Your task to perform on an android device: choose inbox layout in the gmail app Image 0: 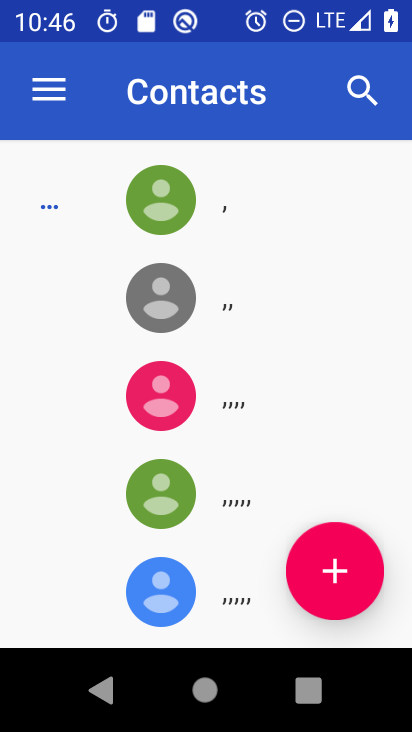
Step 0: drag from (206, 394) to (273, 98)
Your task to perform on an android device: choose inbox layout in the gmail app Image 1: 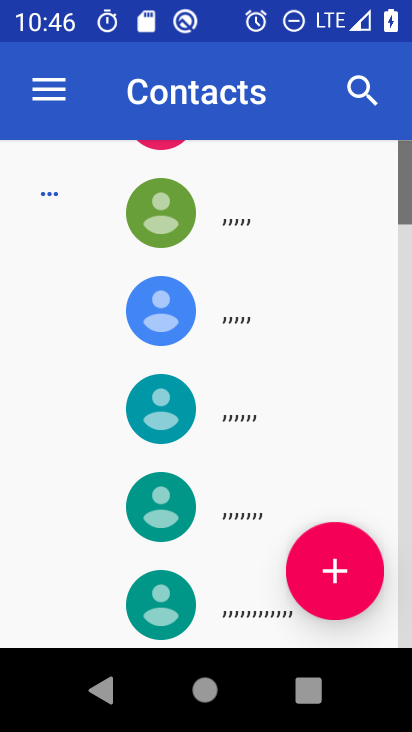
Step 1: press home button
Your task to perform on an android device: choose inbox layout in the gmail app Image 2: 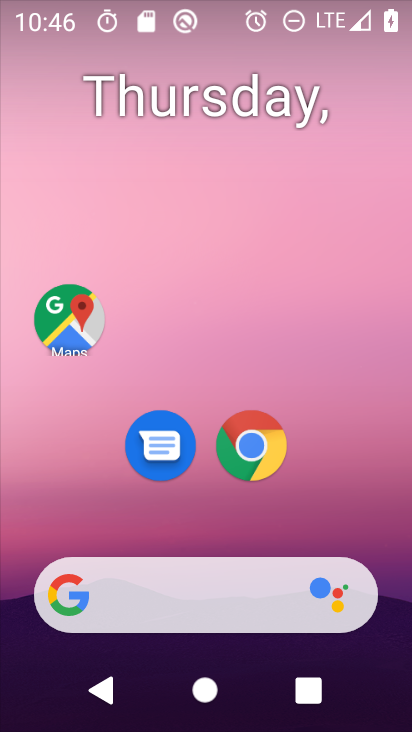
Step 2: drag from (174, 537) to (219, 231)
Your task to perform on an android device: choose inbox layout in the gmail app Image 3: 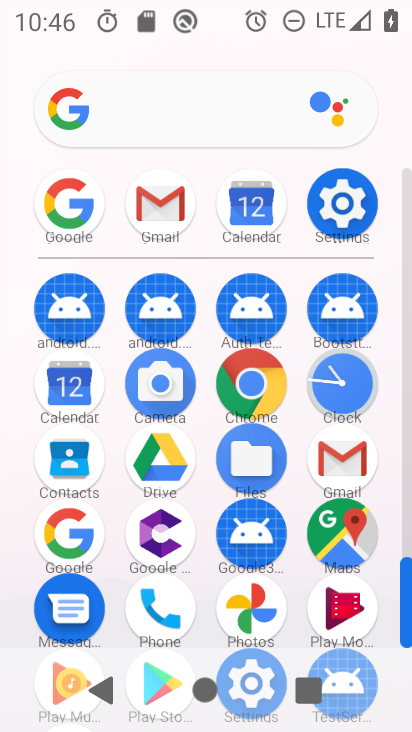
Step 3: click (154, 215)
Your task to perform on an android device: choose inbox layout in the gmail app Image 4: 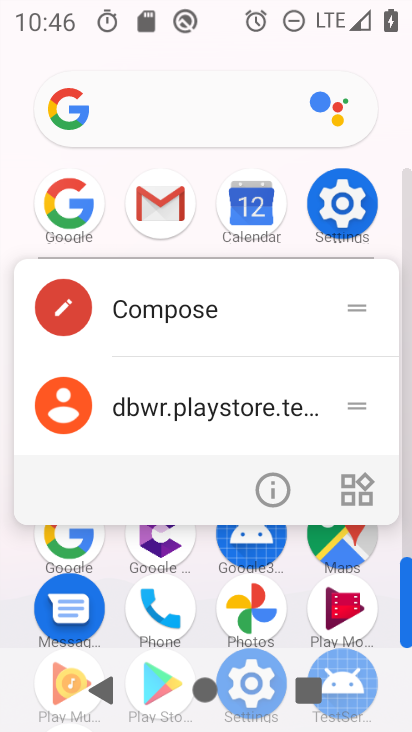
Step 4: click (276, 478)
Your task to perform on an android device: choose inbox layout in the gmail app Image 5: 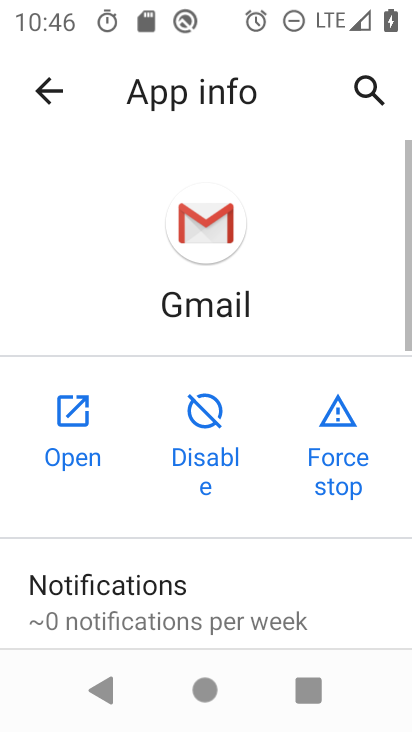
Step 5: click (78, 422)
Your task to perform on an android device: choose inbox layout in the gmail app Image 6: 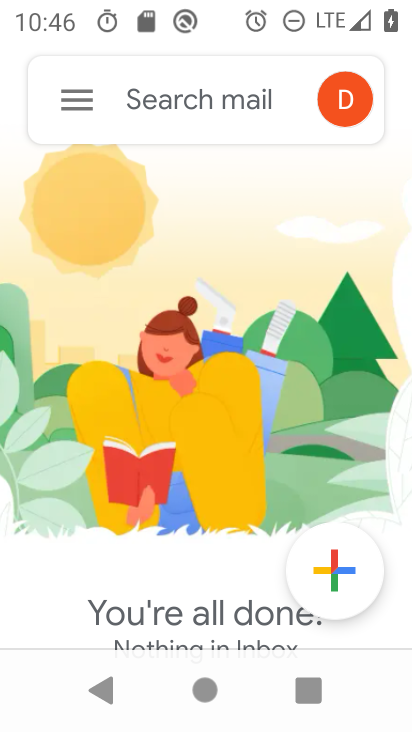
Step 6: click (90, 111)
Your task to perform on an android device: choose inbox layout in the gmail app Image 7: 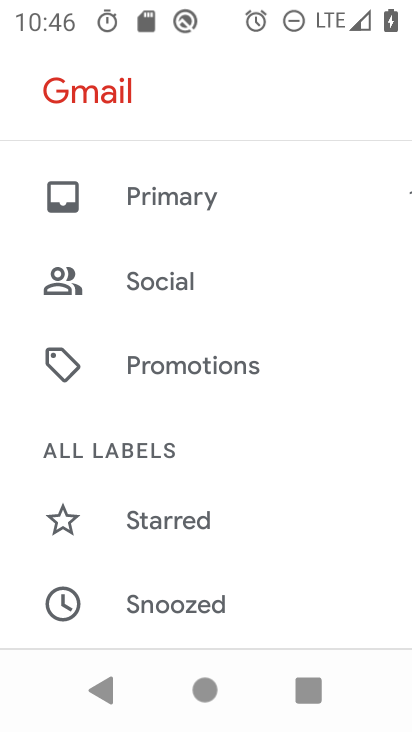
Step 7: click (159, 224)
Your task to perform on an android device: choose inbox layout in the gmail app Image 8: 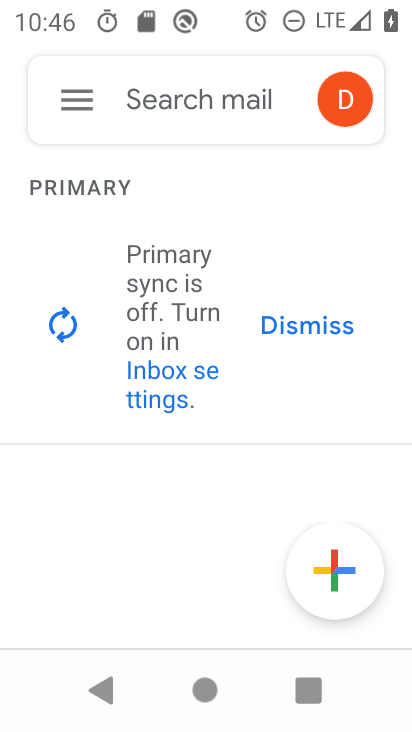
Step 8: drag from (221, 473) to (332, 144)
Your task to perform on an android device: choose inbox layout in the gmail app Image 9: 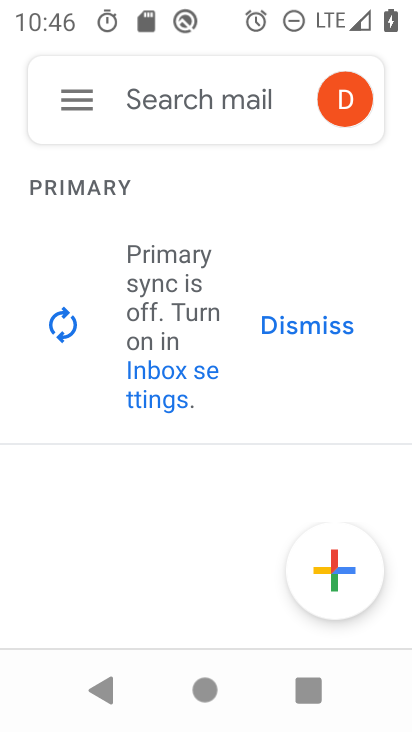
Step 9: click (329, 323)
Your task to perform on an android device: choose inbox layout in the gmail app Image 10: 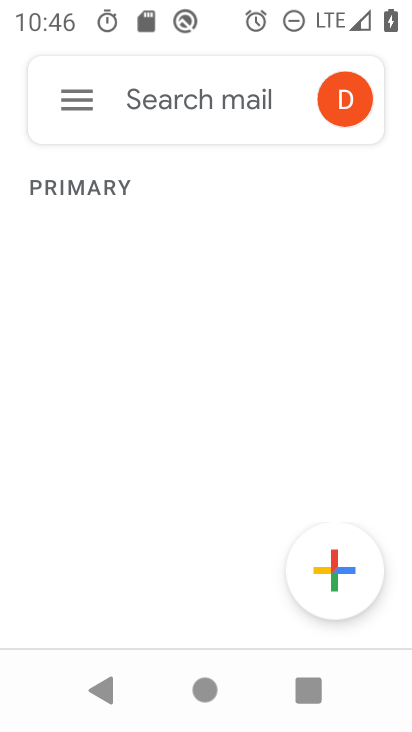
Step 10: task complete